Your task to perform on an android device: change text size in settings app Image 0: 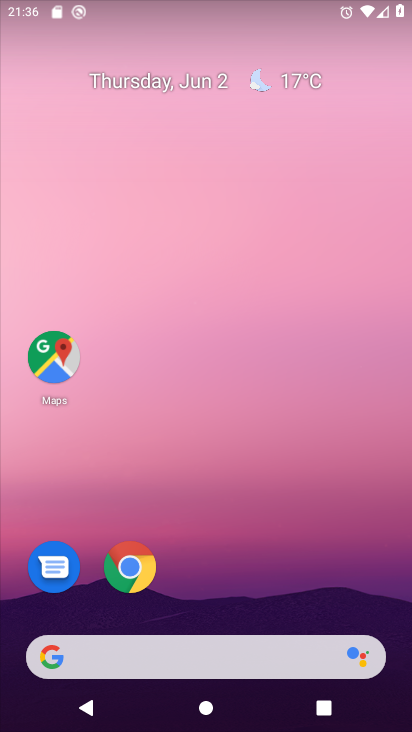
Step 0: drag from (220, 600) to (276, 94)
Your task to perform on an android device: change text size in settings app Image 1: 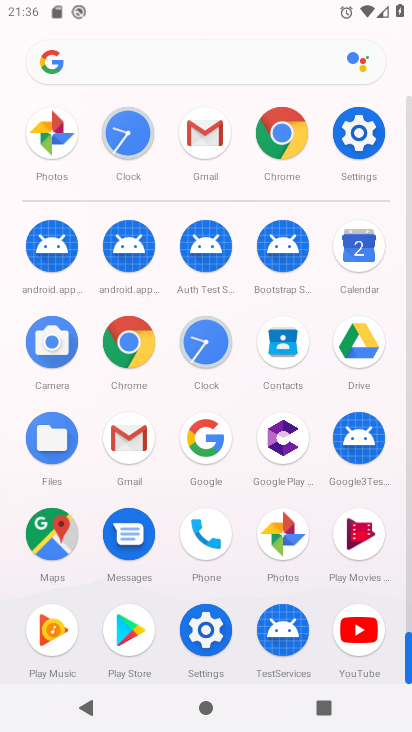
Step 1: click (206, 638)
Your task to perform on an android device: change text size in settings app Image 2: 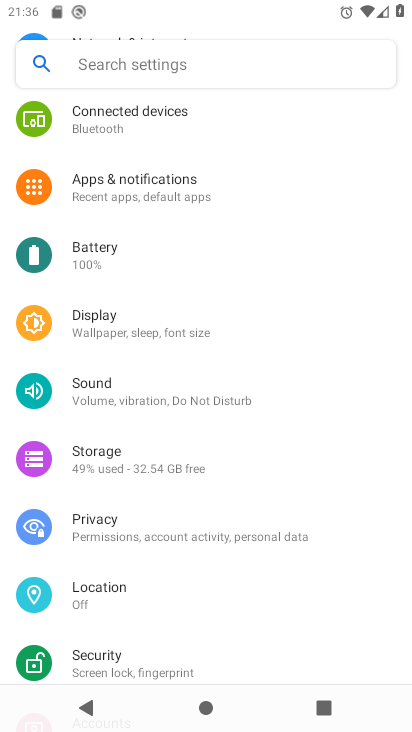
Step 2: click (137, 335)
Your task to perform on an android device: change text size in settings app Image 3: 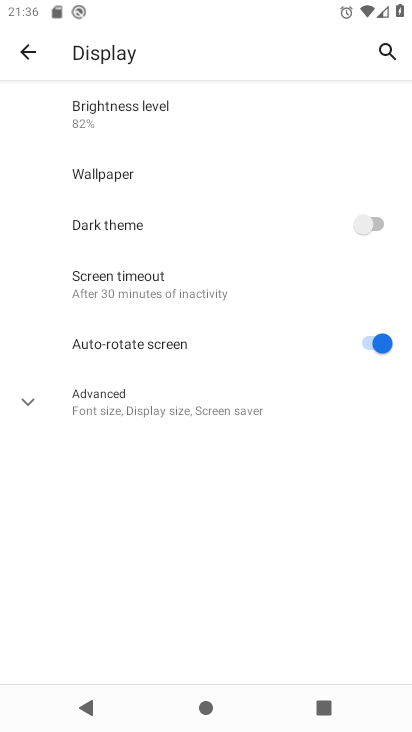
Step 3: click (104, 405)
Your task to perform on an android device: change text size in settings app Image 4: 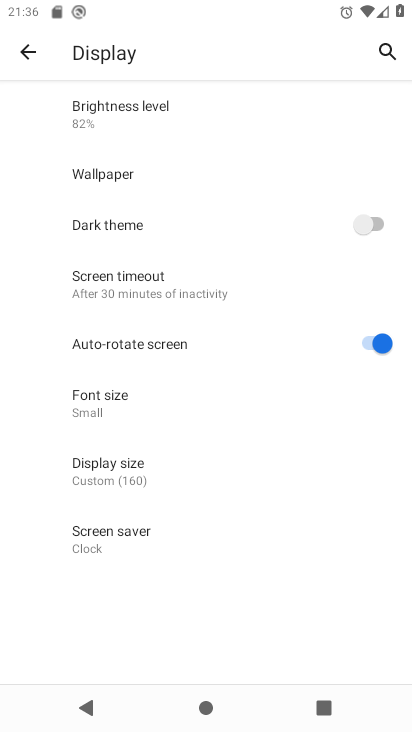
Step 4: click (99, 416)
Your task to perform on an android device: change text size in settings app Image 5: 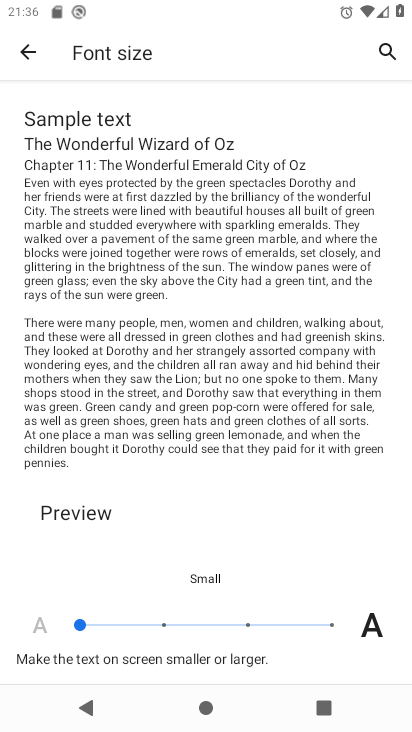
Step 5: click (159, 620)
Your task to perform on an android device: change text size in settings app Image 6: 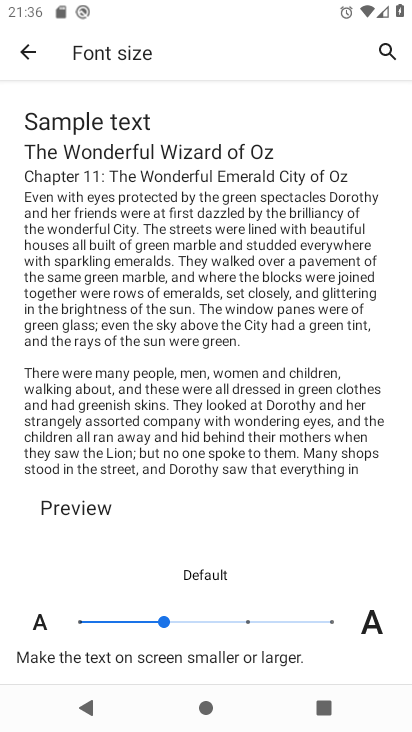
Step 6: task complete